Your task to perform on an android device: Go to sound settings Image 0: 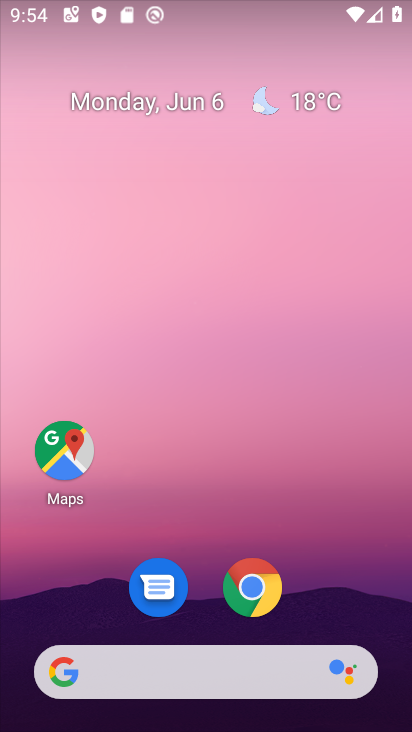
Step 0: drag from (337, 536) to (262, 58)
Your task to perform on an android device: Go to sound settings Image 1: 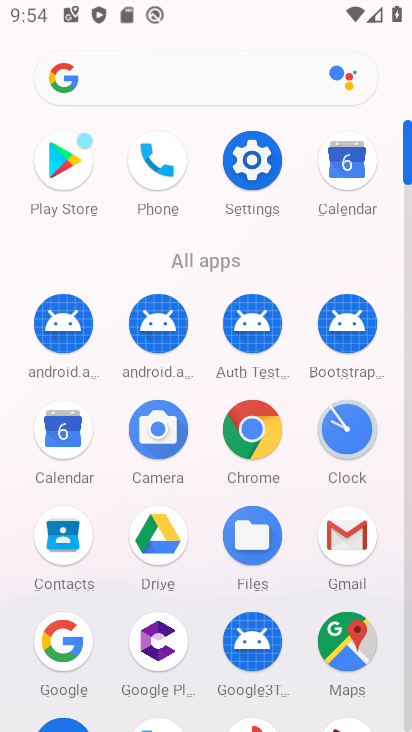
Step 1: click (242, 165)
Your task to perform on an android device: Go to sound settings Image 2: 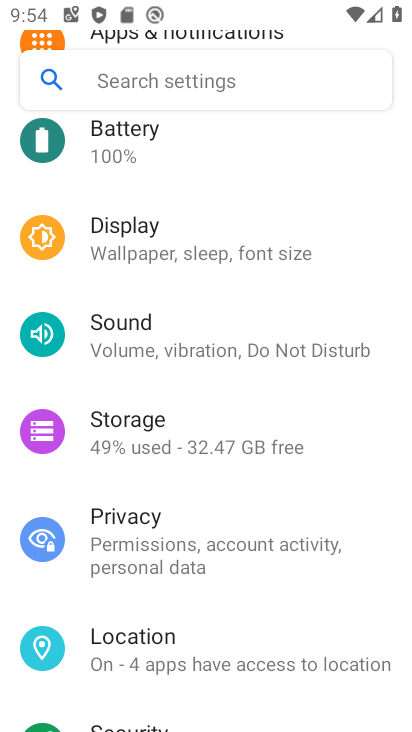
Step 2: click (231, 346)
Your task to perform on an android device: Go to sound settings Image 3: 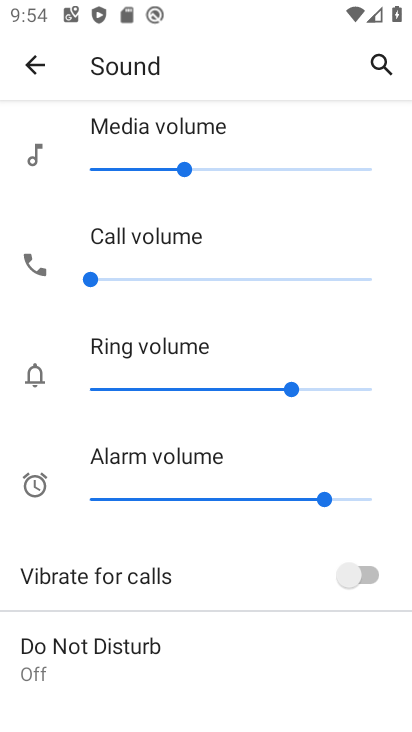
Step 3: task complete